Your task to perform on an android device: delete location history Image 0: 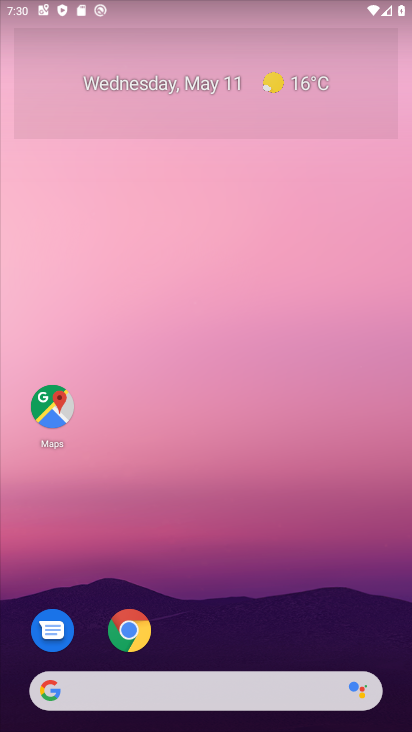
Step 0: drag from (347, 579) to (330, 95)
Your task to perform on an android device: delete location history Image 1: 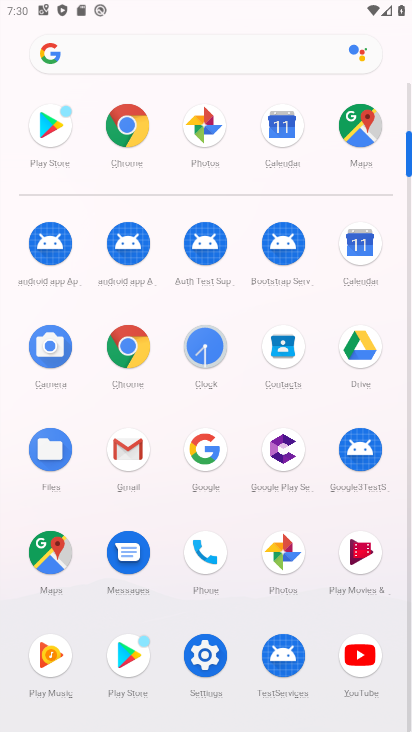
Step 1: click (360, 141)
Your task to perform on an android device: delete location history Image 2: 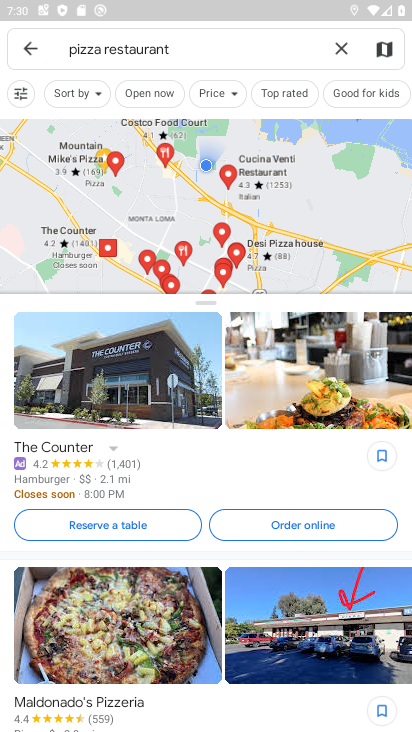
Step 2: click (30, 47)
Your task to perform on an android device: delete location history Image 3: 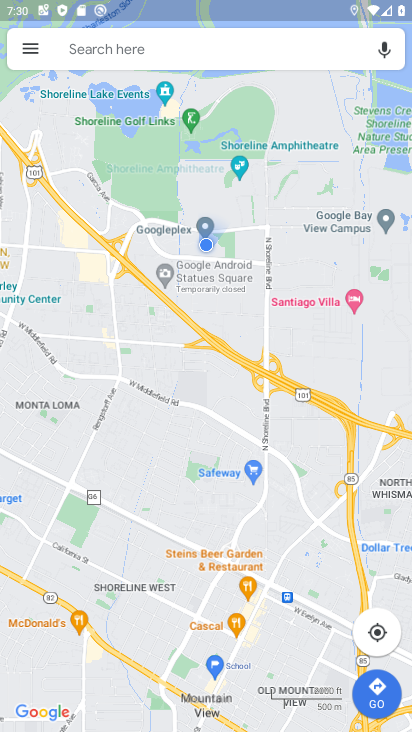
Step 3: click (30, 47)
Your task to perform on an android device: delete location history Image 4: 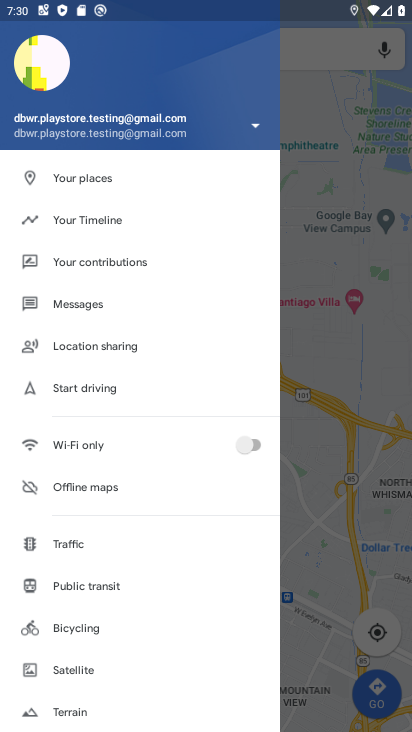
Step 4: click (93, 219)
Your task to perform on an android device: delete location history Image 5: 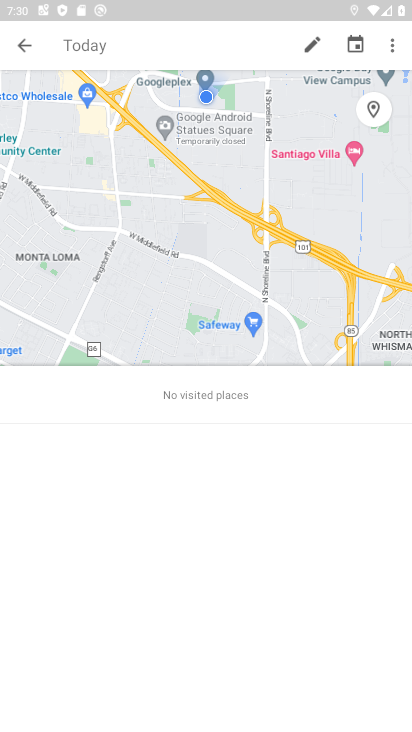
Step 5: click (369, 46)
Your task to perform on an android device: delete location history Image 6: 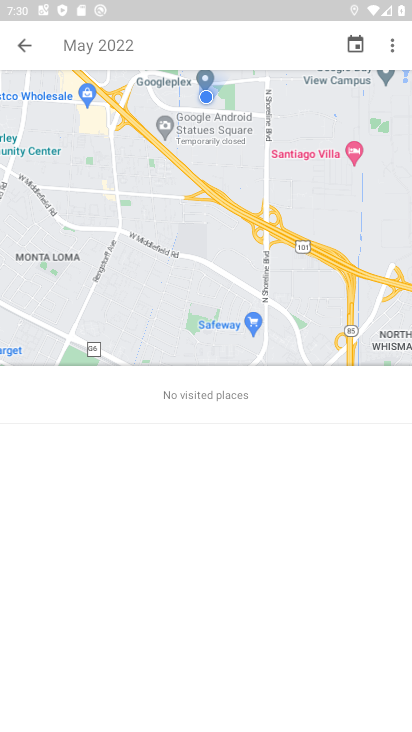
Step 6: click (391, 49)
Your task to perform on an android device: delete location history Image 7: 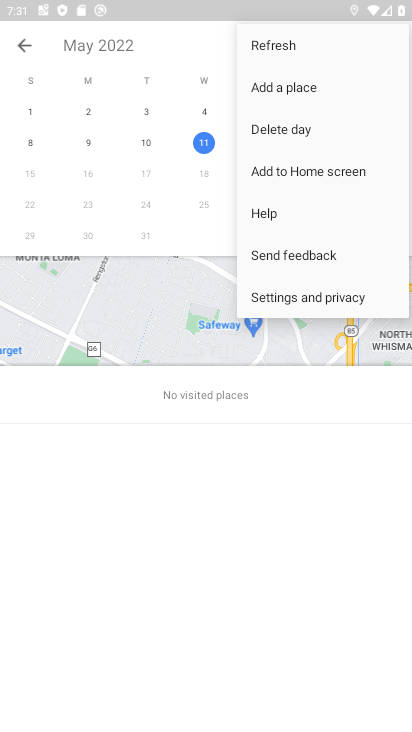
Step 7: click (341, 289)
Your task to perform on an android device: delete location history Image 8: 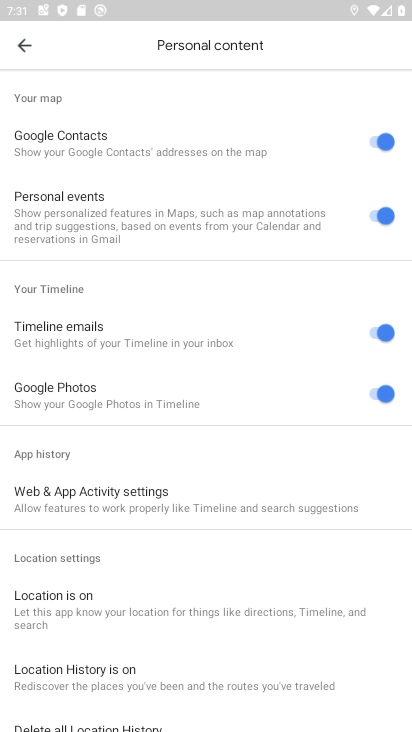
Step 8: drag from (214, 678) to (207, 115)
Your task to perform on an android device: delete location history Image 9: 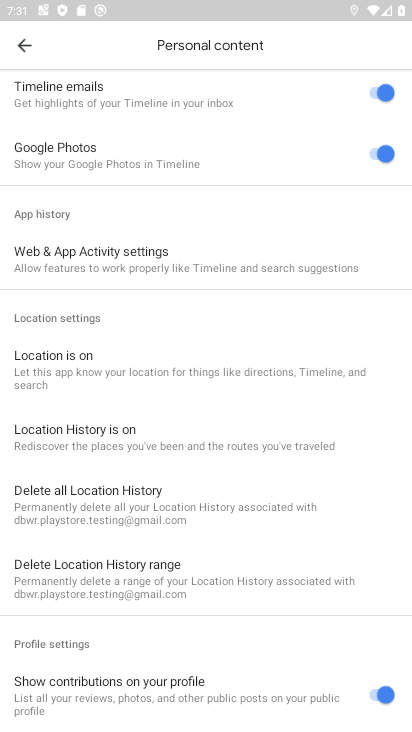
Step 9: click (127, 511)
Your task to perform on an android device: delete location history Image 10: 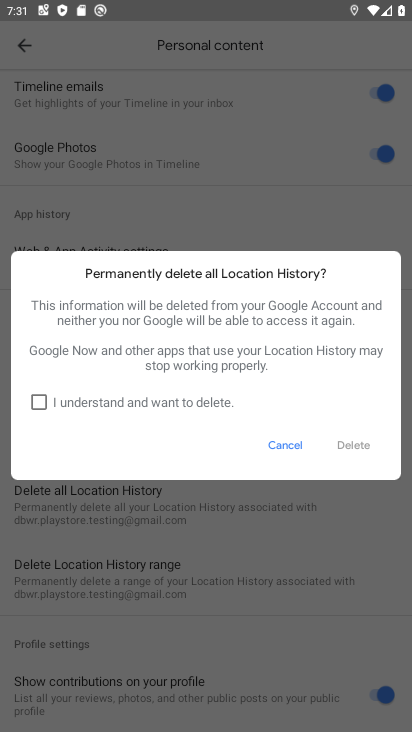
Step 10: click (44, 410)
Your task to perform on an android device: delete location history Image 11: 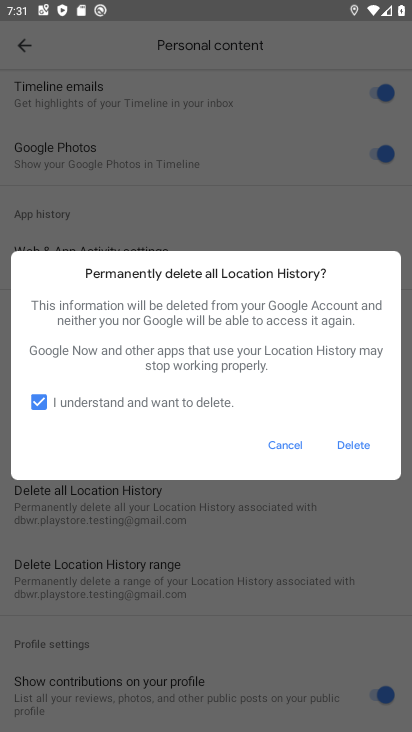
Step 11: click (358, 444)
Your task to perform on an android device: delete location history Image 12: 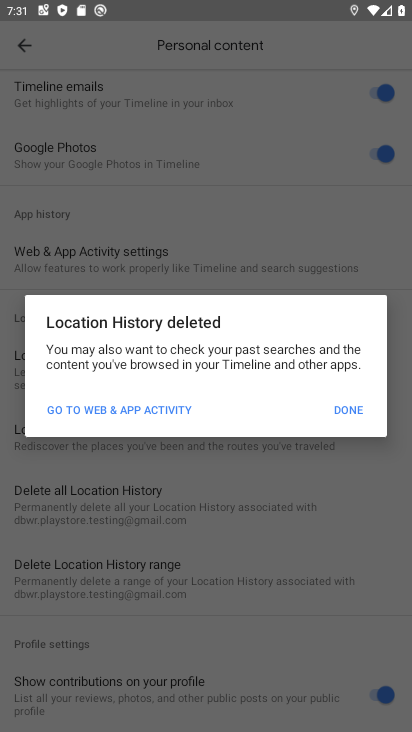
Step 12: task complete